Your task to perform on an android device: change keyboard looks Image 0: 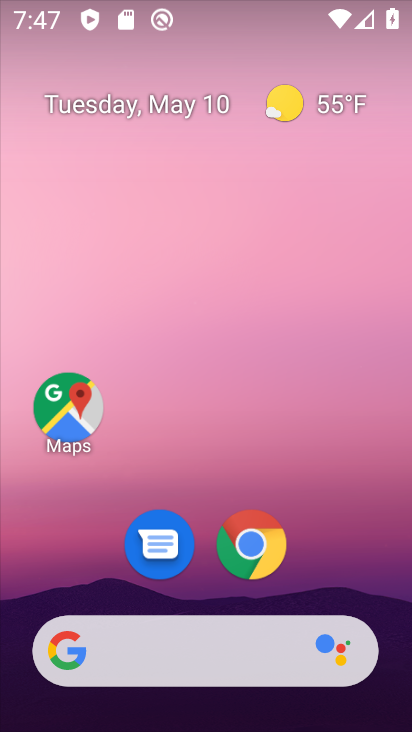
Step 0: drag from (227, 585) to (212, 137)
Your task to perform on an android device: change keyboard looks Image 1: 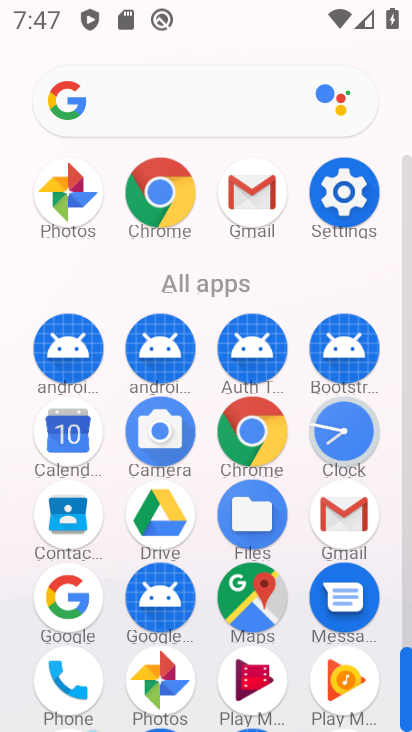
Step 1: click (340, 197)
Your task to perform on an android device: change keyboard looks Image 2: 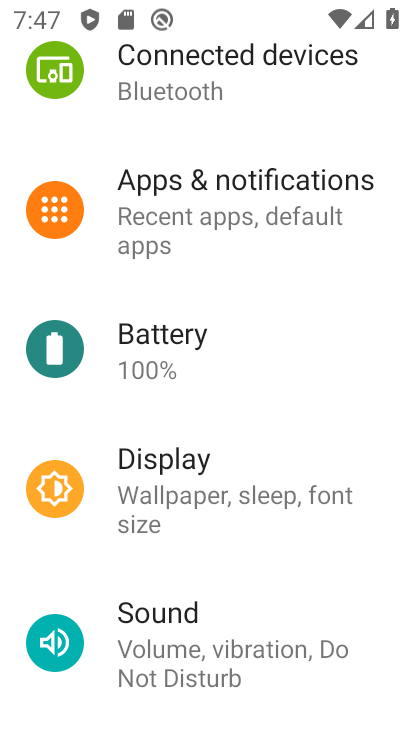
Step 2: drag from (173, 663) to (137, 209)
Your task to perform on an android device: change keyboard looks Image 3: 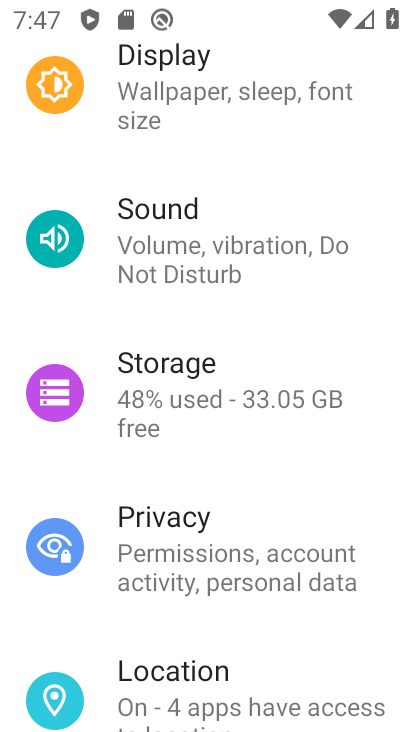
Step 3: drag from (185, 710) to (203, 288)
Your task to perform on an android device: change keyboard looks Image 4: 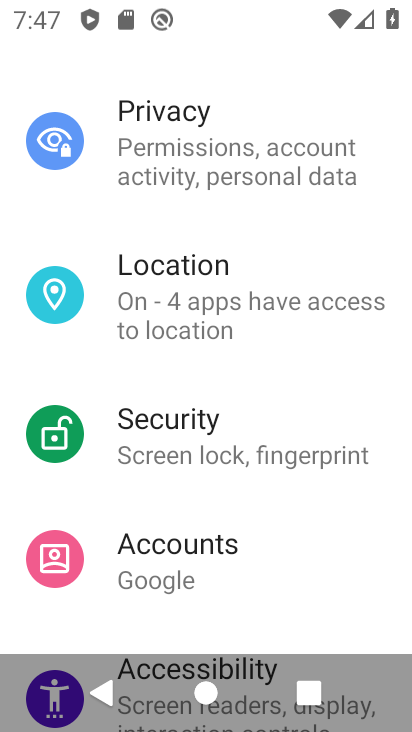
Step 4: drag from (223, 617) to (211, 263)
Your task to perform on an android device: change keyboard looks Image 5: 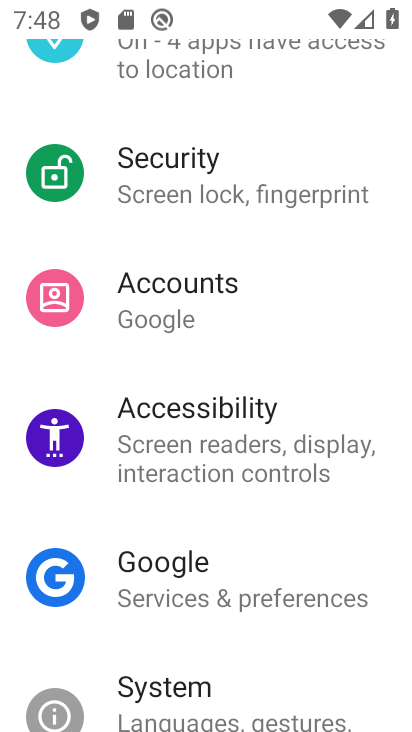
Step 5: drag from (205, 672) to (231, 318)
Your task to perform on an android device: change keyboard looks Image 6: 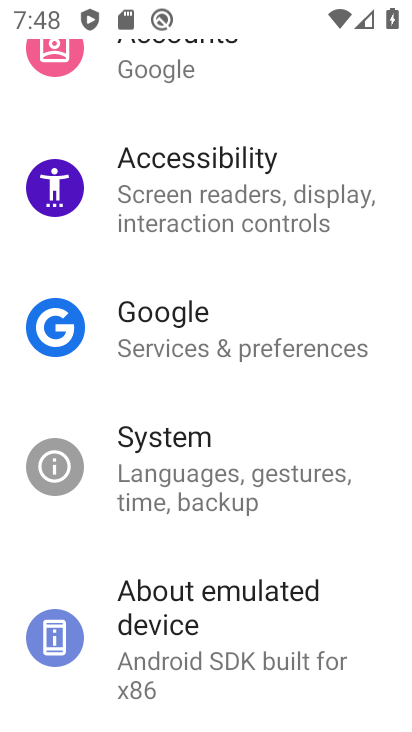
Step 6: click (211, 480)
Your task to perform on an android device: change keyboard looks Image 7: 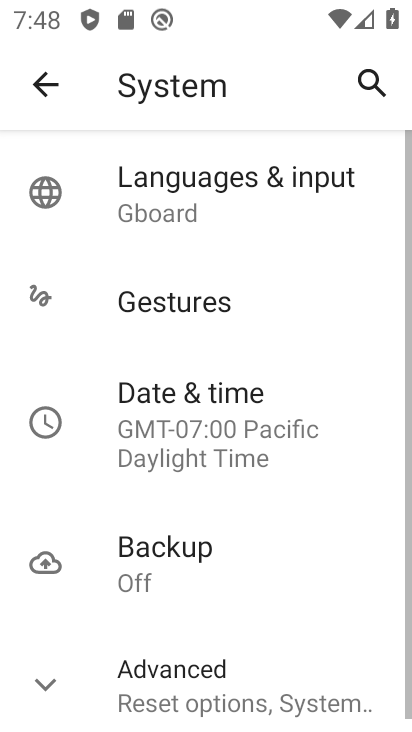
Step 7: click (178, 171)
Your task to perform on an android device: change keyboard looks Image 8: 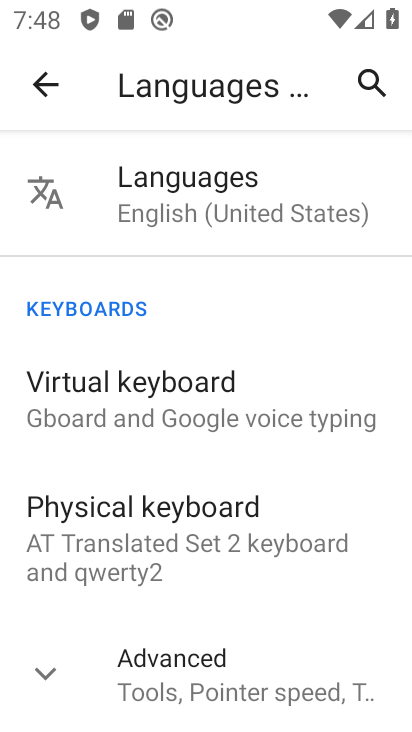
Step 8: click (123, 402)
Your task to perform on an android device: change keyboard looks Image 9: 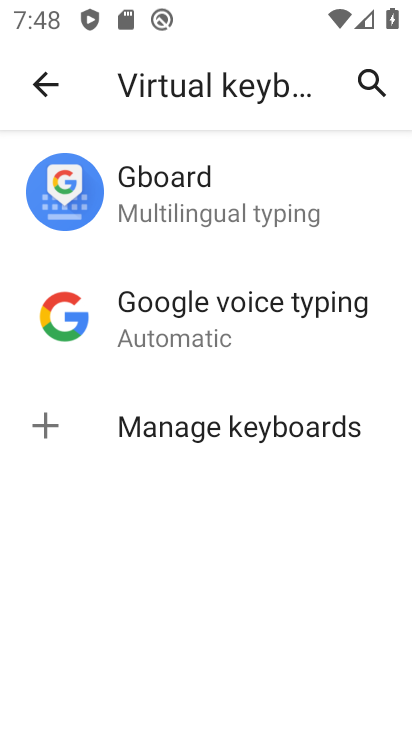
Step 9: click (135, 183)
Your task to perform on an android device: change keyboard looks Image 10: 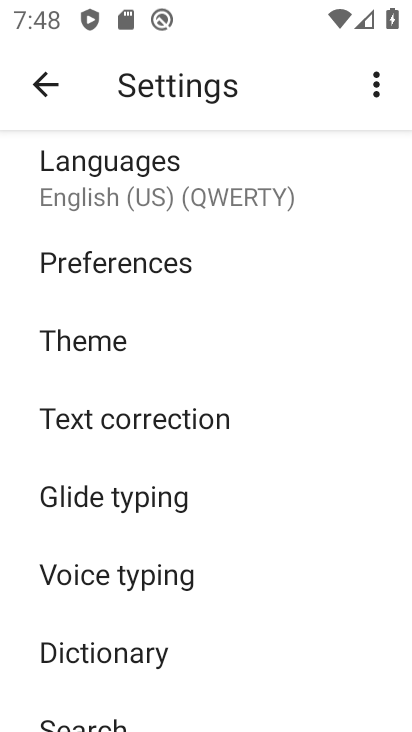
Step 10: click (59, 343)
Your task to perform on an android device: change keyboard looks Image 11: 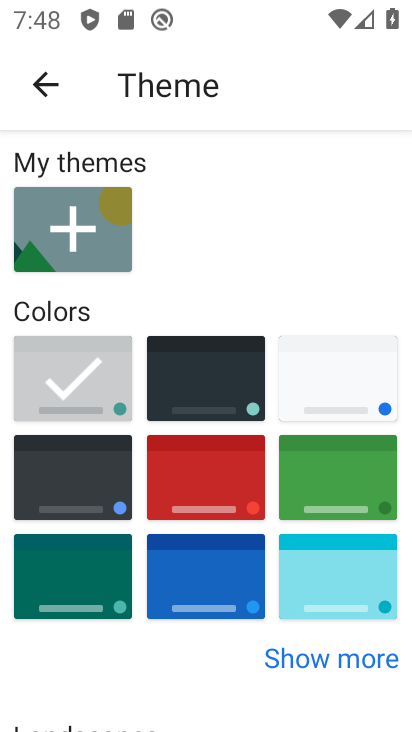
Step 11: click (189, 384)
Your task to perform on an android device: change keyboard looks Image 12: 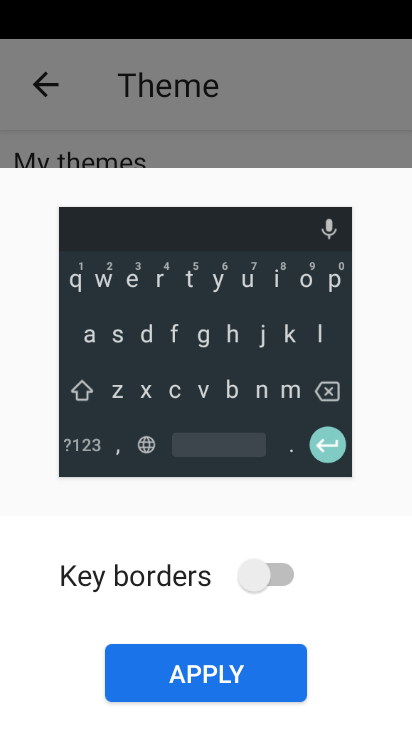
Step 12: click (222, 669)
Your task to perform on an android device: change keyboard looks Image 13: 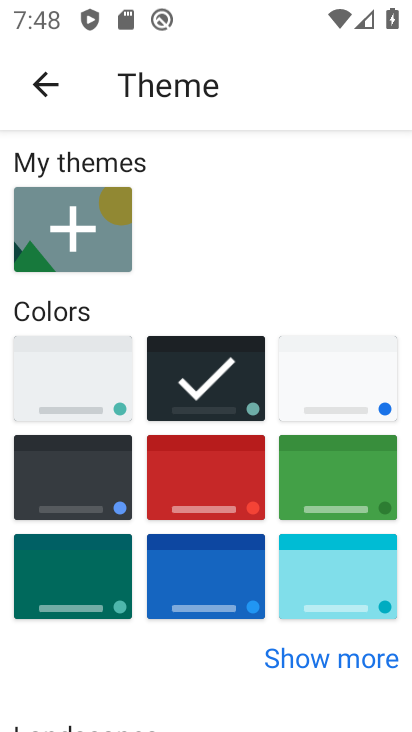
Step 13: task complete